Your task to perform on an android device: Go to ESPN.com Image 0: 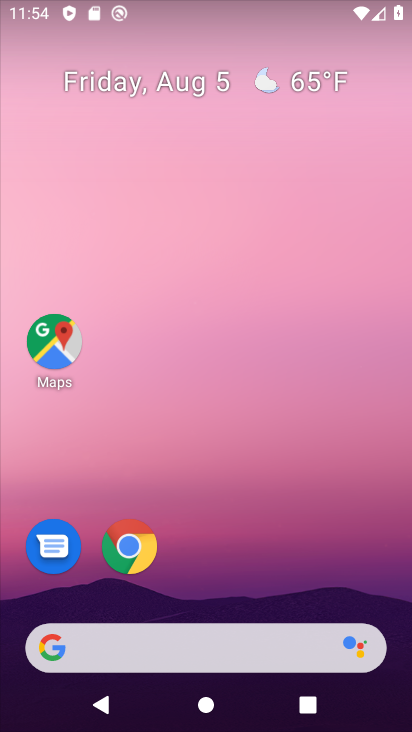
Step 0: drag from (275, 564) to (280, 4)
Your task to perform on an android device: Go to ESPN.com Image 1: 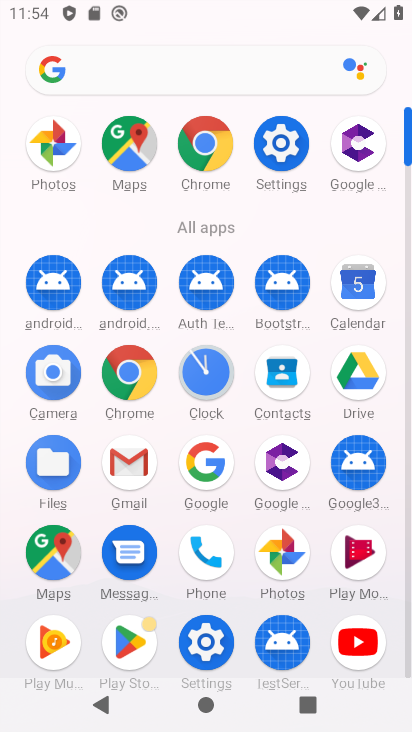
Step 1: click (135, 397)
Your task to perform on an android device: Go to ESPN.com Image 2: 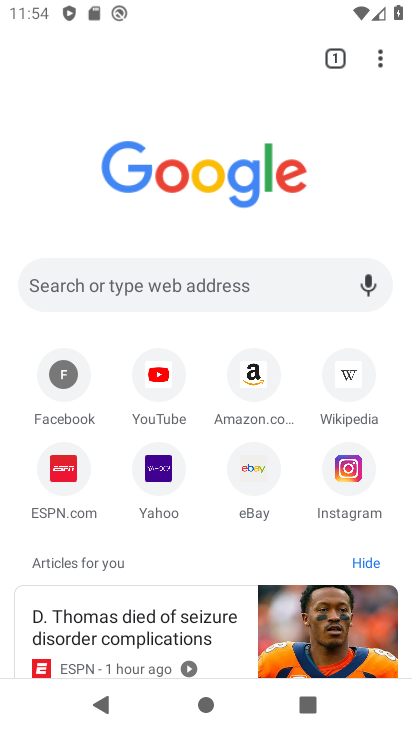
Step 2: click (86, 480)
Your task to perform on an android device: Go to ESPN.com Image 3: 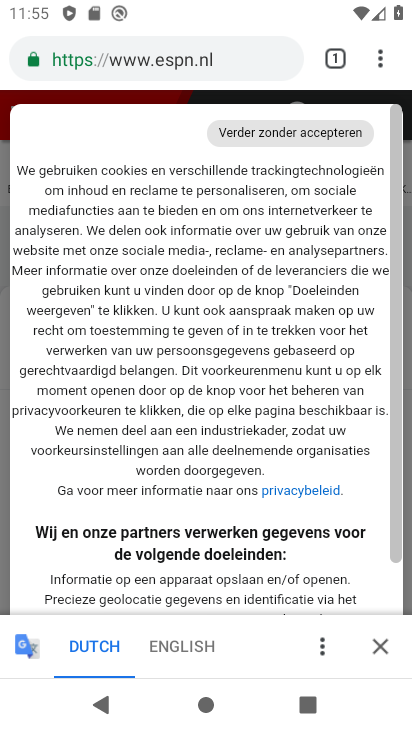
Step 3: task complete